Your task to perform on an android device: snooze an email in the gmail app Image 0: 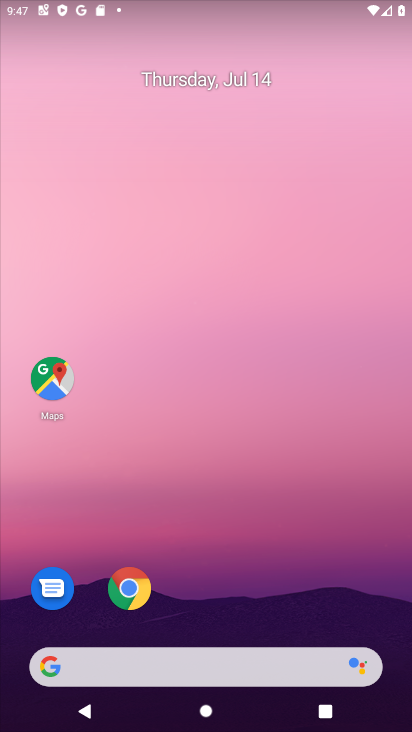
Step 0: press home button
Your task to perform on an android device: snooze an email in the gmail app Image 1: 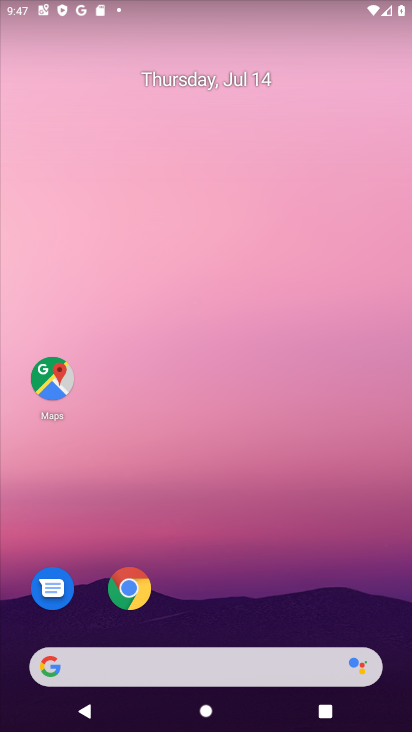
Step 1: drag from (182, 599) to (279, 217)
Your task to perform on an android device: snooze an email in the gmail app Image 2: 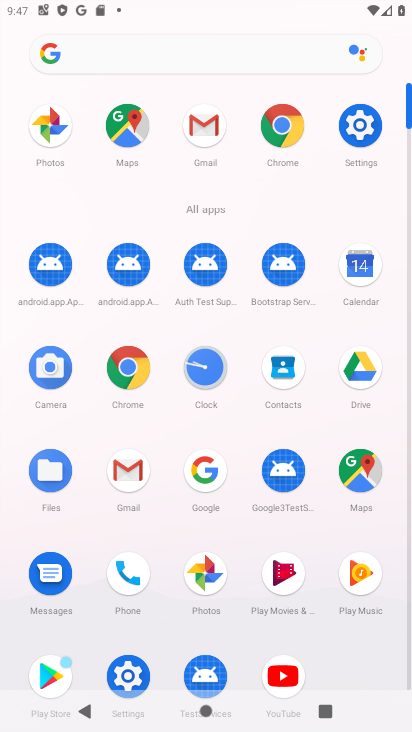
Step 2: click (125, 478)
Your task to perform on an android device: snooze an email in the gmail app Image 3: 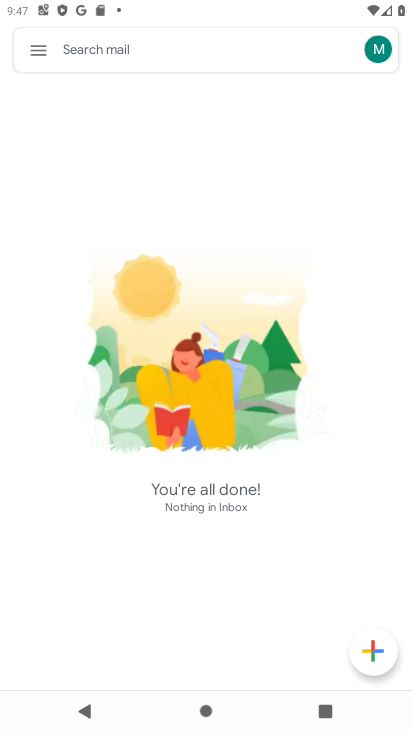
Step 3: click (31, 45)
Your task to perform on an android device: snooze an email in the gmail app Image 4: 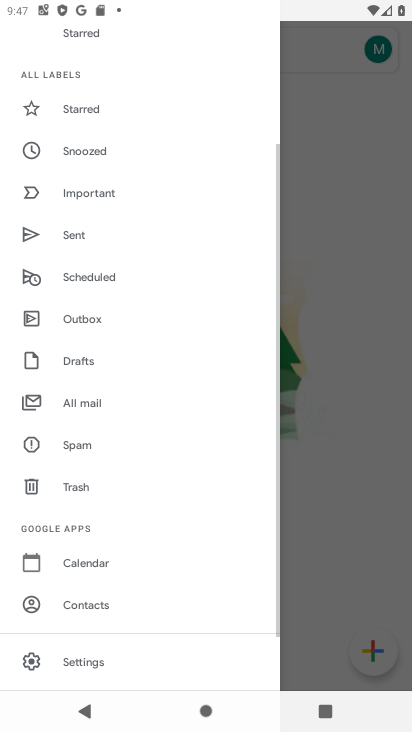
Step 4: click (91, 400)
Your task to perform on an android device: snooze an email in the gmail app Image 5: 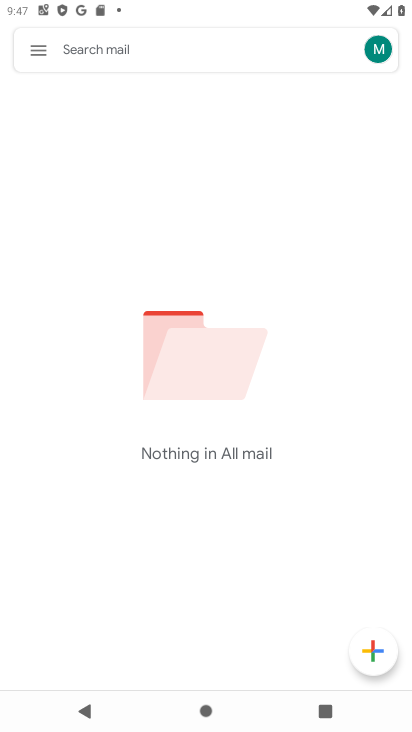
Step 5: task complete